Your task to perform on an android device: Open Reddit.com Image 0: 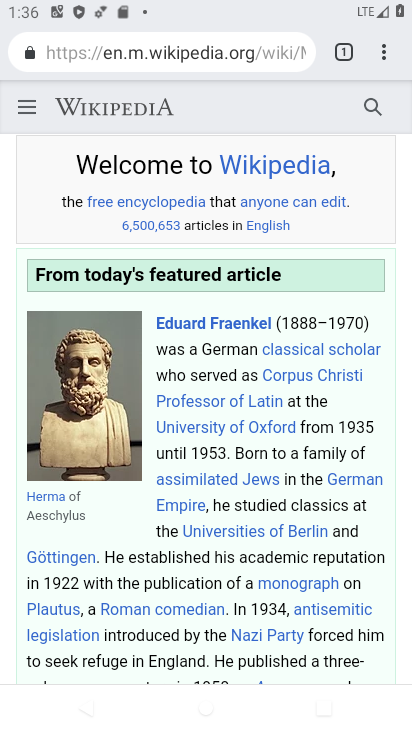
Step 0: press home button
Your task to perform on an android device: Open Reddit.com Image 1: 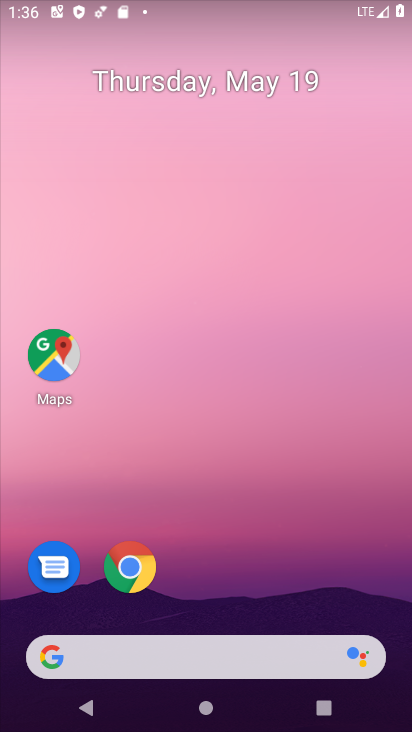
Step 1: click (278, 447)
Your task to perform on an android device: Open Reddit.com Image 2: 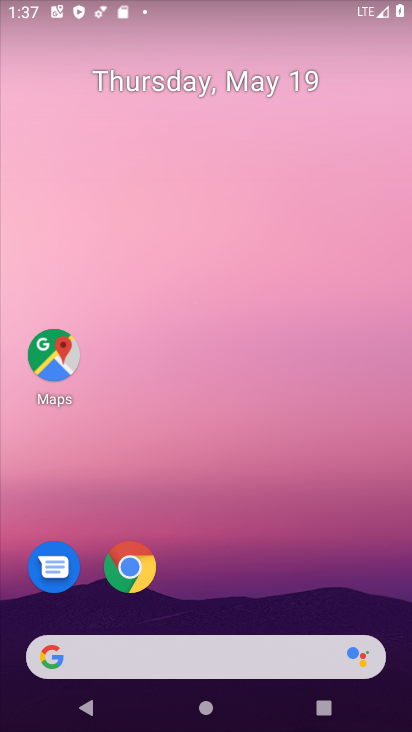
Step 2: click (122, 563)
Your task to perform on an android device: Open Reddit.com Image 3: 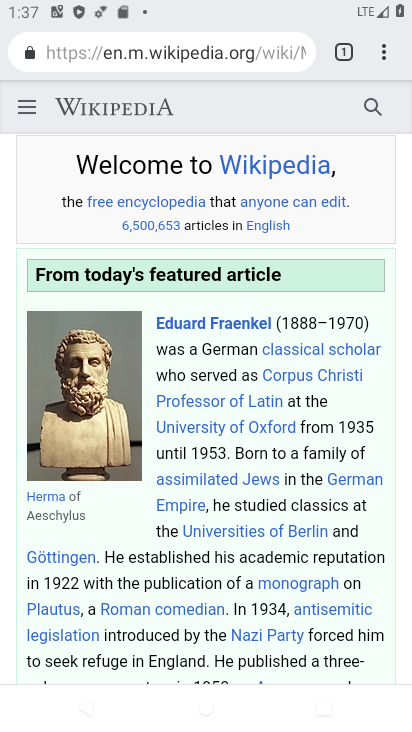
Step 3: click (155, 37)
Your task to perform on an android device: Open Reddit.com Image 4: 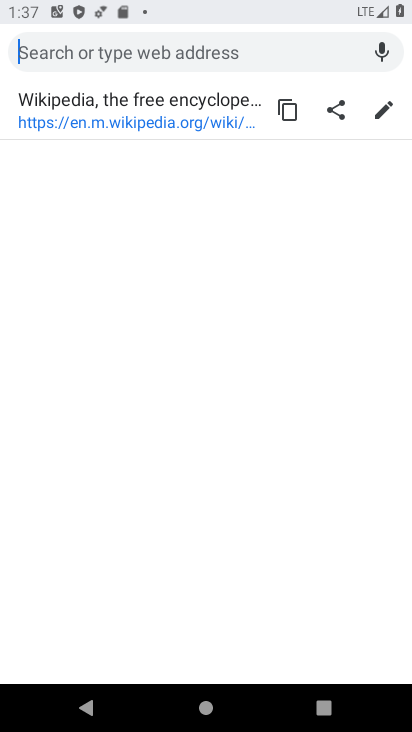
Step 4: type "Reddit.com"
Your task to perform on an android device: Open Reddit.com Image 5: 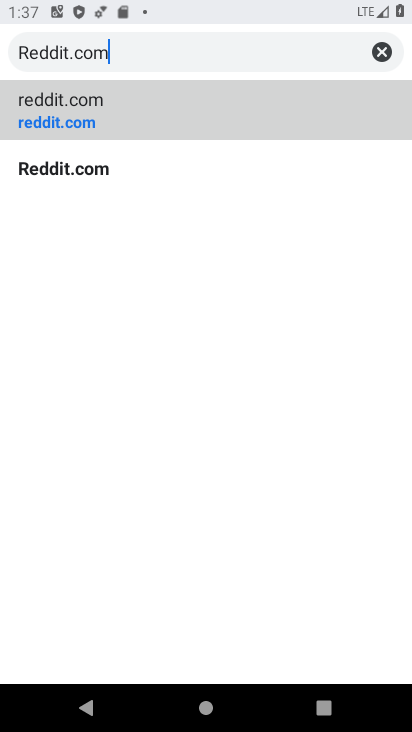
Step 5: type ""
Your task to perform on an android device: Open Reddit.com Image 6: 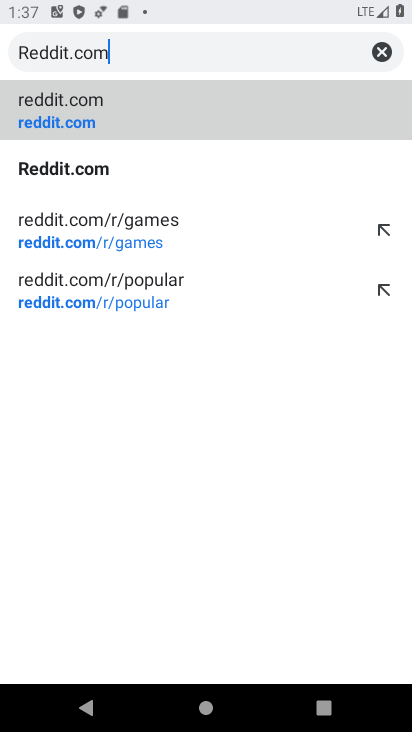
Step 6: click (86, 172)
Your task to perform on an android device: Open Reddit.com Image 7: 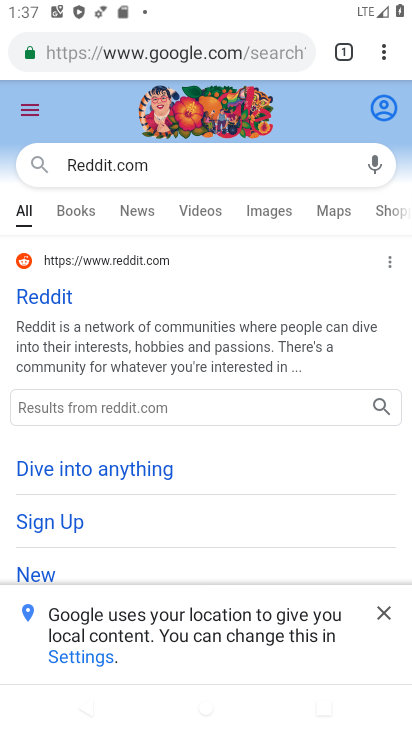
Step 7: click (40, 291)
Your task to perform on an android device: Open Reddit.com Image 8: 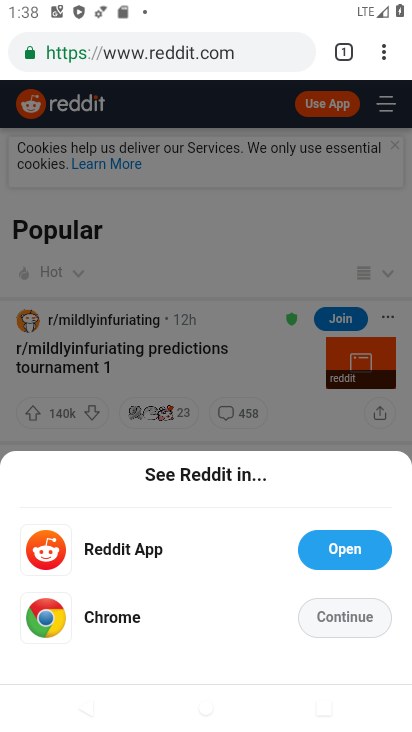
Step 8: task complete